Your task to perform on an android device: refresh tabs in the chrome app Image 0: 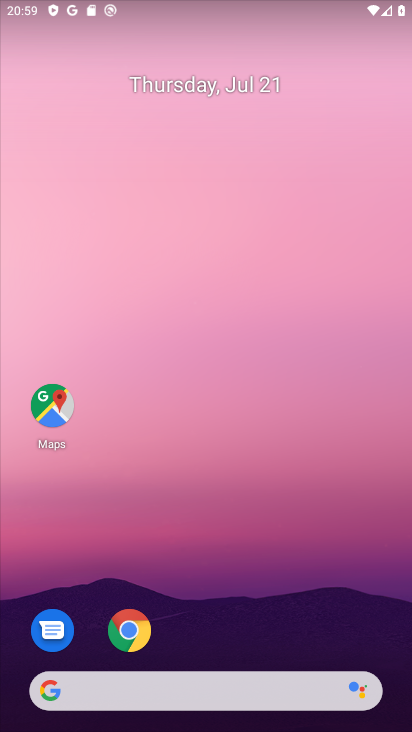
Step 0: drag from (302, 631) to (241, 99)
Your task to perform on an android device: refresh tabs in the chrome app Image 1: 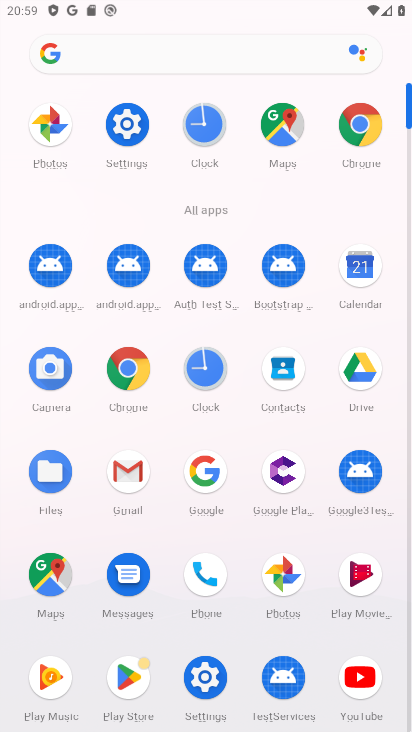
Step 1: click (373, 118)
Your task to perform on an android device: refresh tabs in the chrome app Image 2: 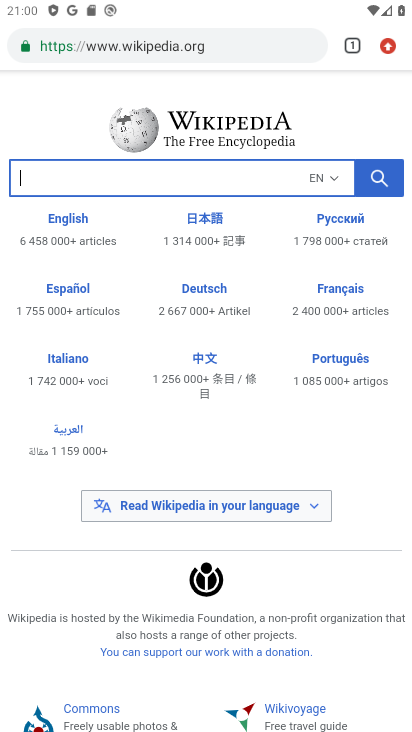
Step 2: task complete